Your task to perform on an android device: Go to Wikipedia Image 0: 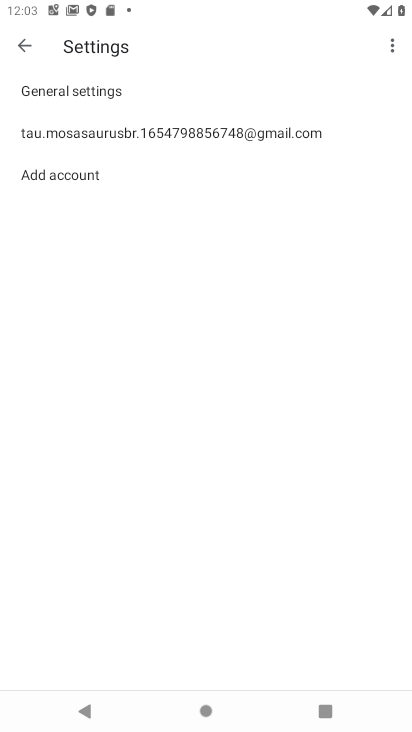
Step 0: press home button
Your task to perform on an android device: Go to Wikipedia Image 1: 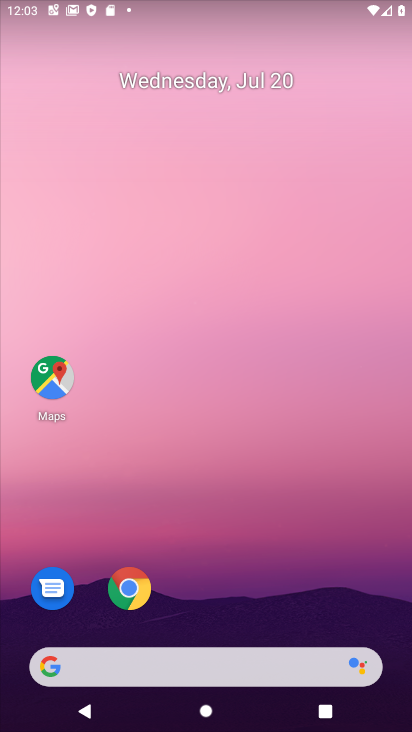
Step 1: click (127, 581)
Your task to perform on an android device: Go to Wikipedia Image 2: 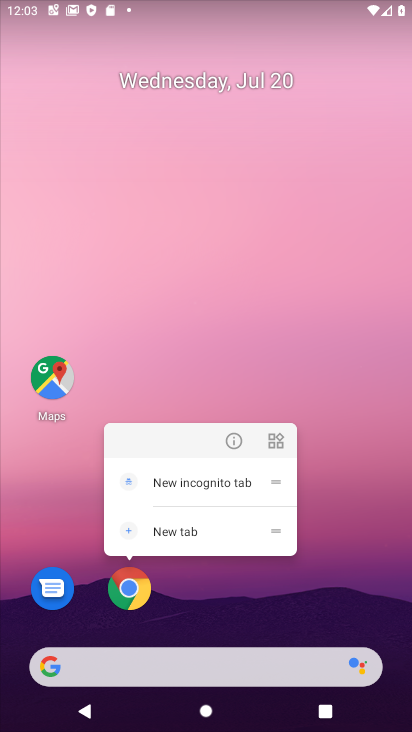
Step 2: click (127, 582)
Your task to perform on an android device: Go to Wikipedia Image 3: 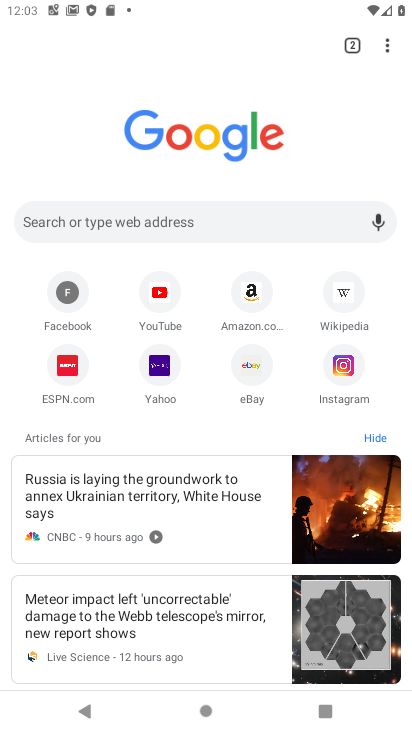
Step 3: click (140, 228)
Your task to perform on an android device: Go to Wikipedia Image 4: 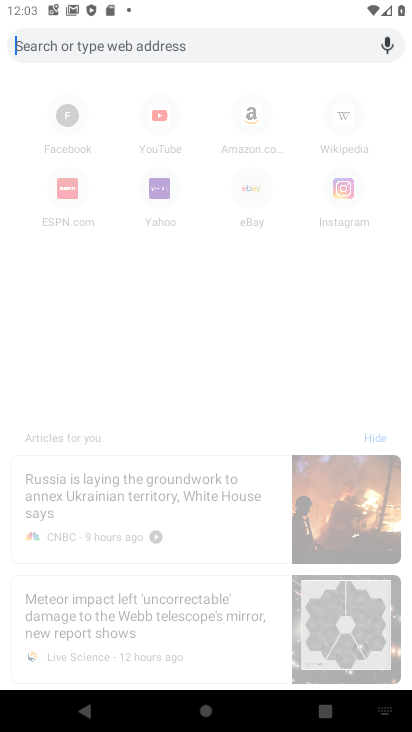
Step 4: type "Wikipedia"
Your task to perform on an android device: Go to Wikipedia Image 5: 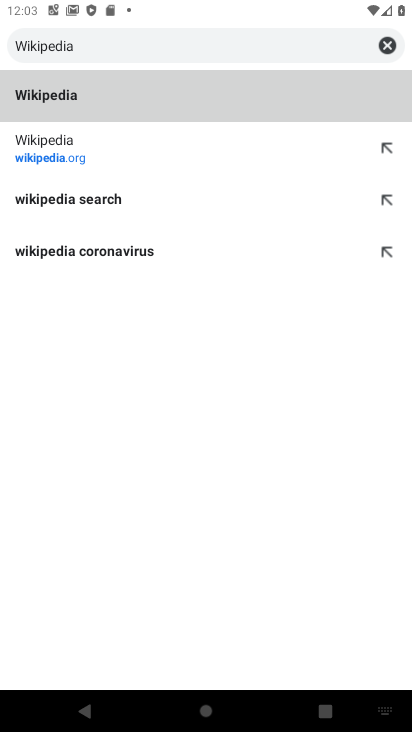
Step 5: click (72, 80)
Your task to perform on an android device: Go to Wikipedia Image 6: 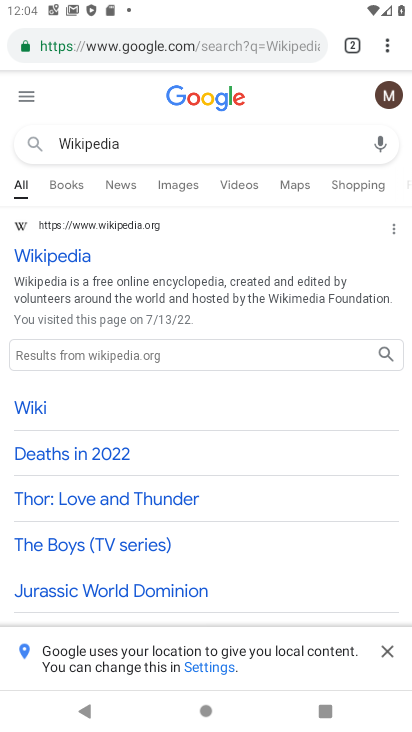
Step 6: task complete